Your task to perform on an android device: Open Yahoo.com Image 0: 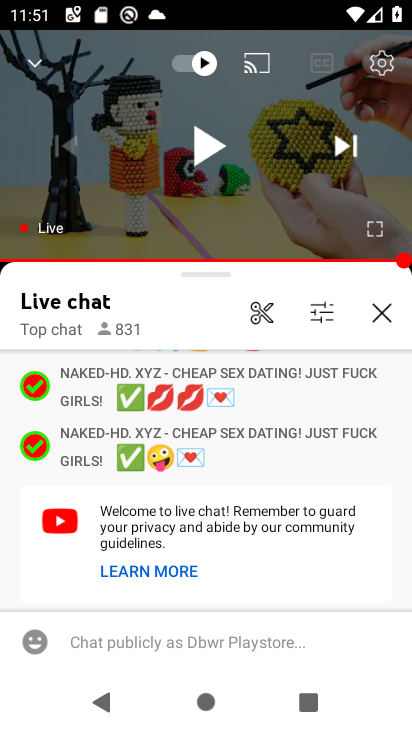
Step 0: press home button
Your task to perform on an android device: Open Yahoo.com Image 1: 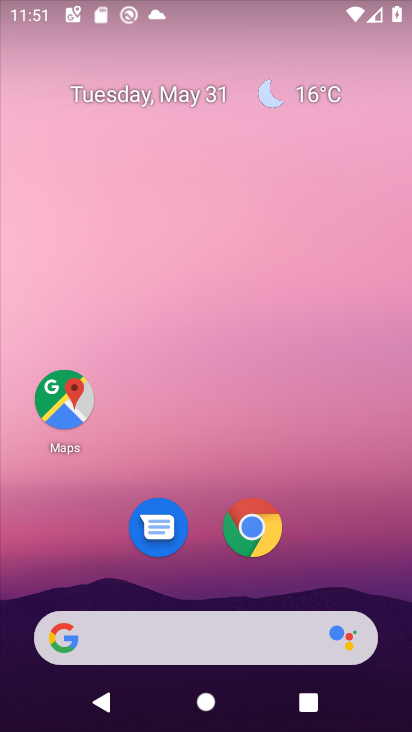
Step 1: click (249, 538)
Your task to perform on an android device: Open Yahoo.com Image 2: 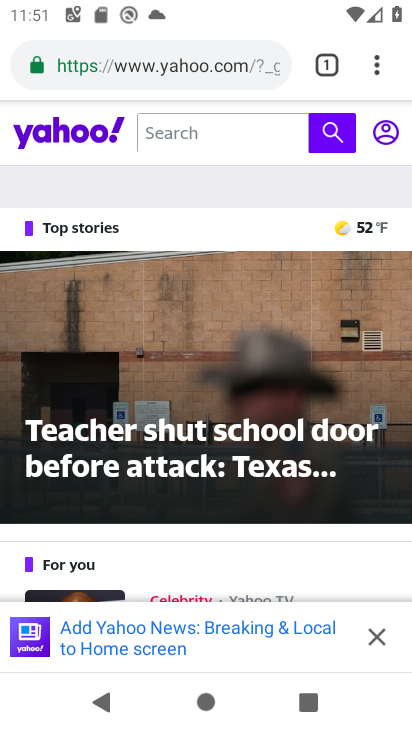
Step 2: task complete